Your task to perform on an android device: move an email to a new category in the gmail app Image 0: 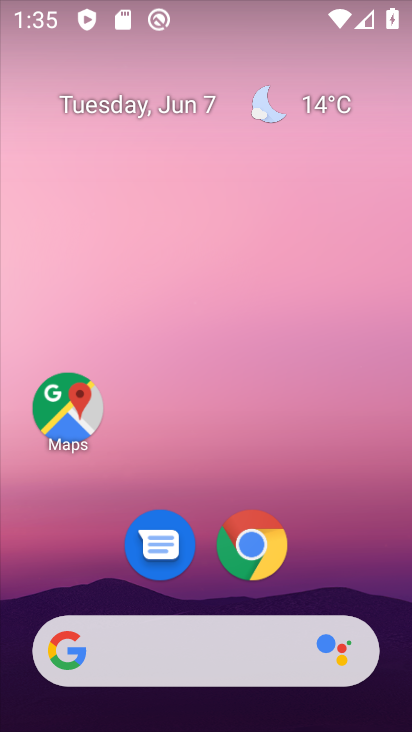
Step 0: drag from (324, 590) to (226, 95)
Your task to perform on an android device: move an email to a new category in the gmail app Image 1: 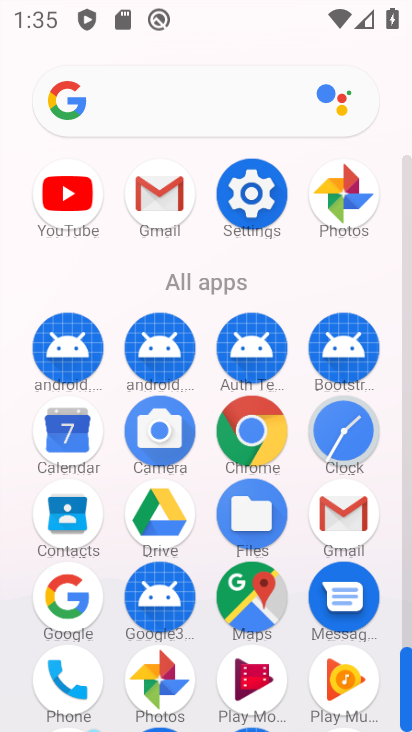
Step 1: click (153, 213)
Your task to perform on an android device: move an email to a new category in the gmail app Image 2: 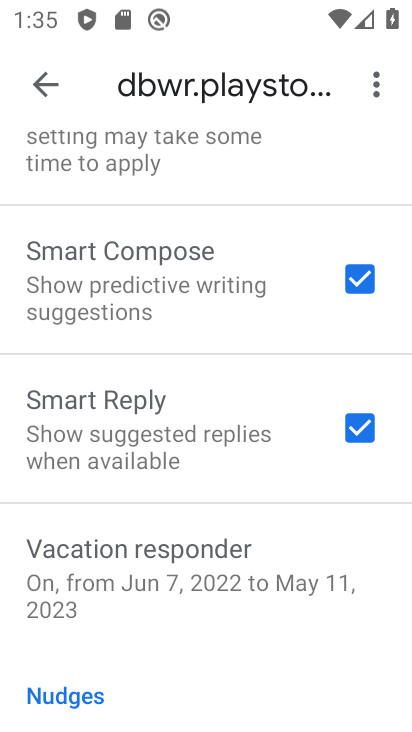
Step 2: click (38, 96)
Your task to perform on an android device: move an email to a new category in the gmail app Image 3: 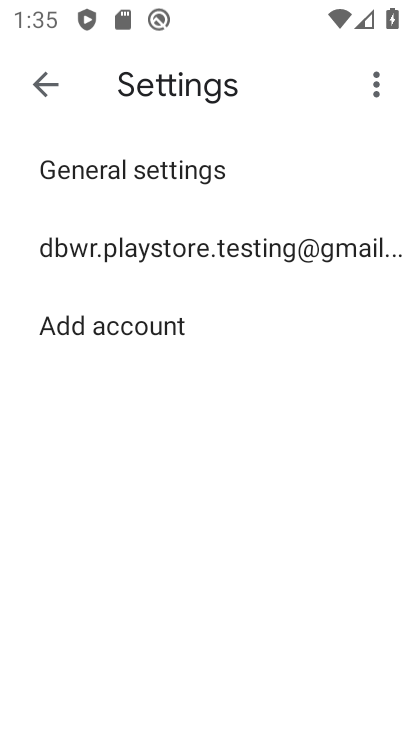
Step 3: click (43, 92)
Your task to perform on an android device: move an email to a new category in the gmail app Image 4: 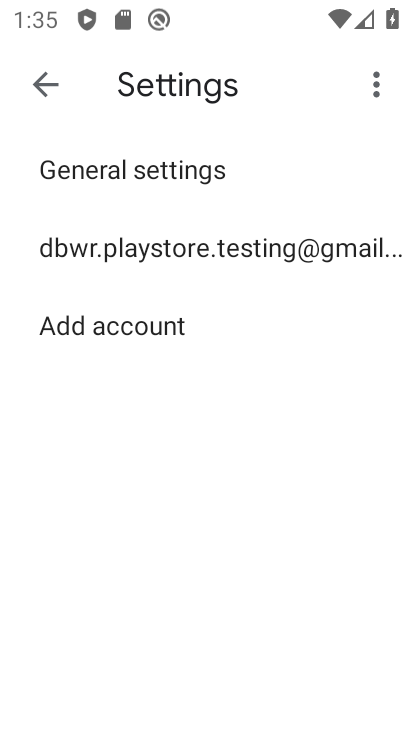
Step 4: click (46, 88)
Your task to perform on an android device: move an email to a new category in the gmail app Image 5: 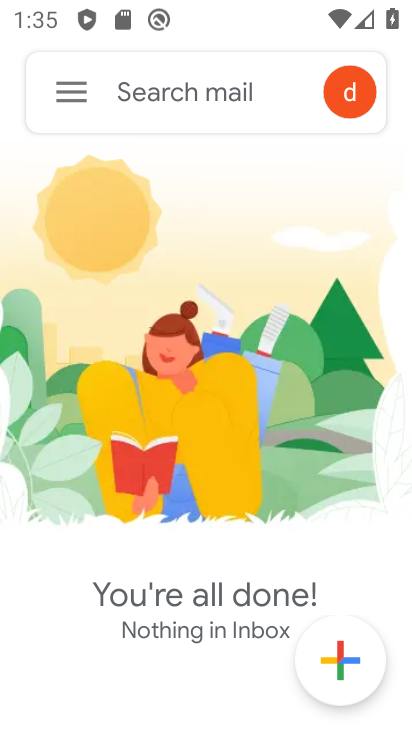
Step 5: task complete